Your task to perform on an android device: turn on translation in the chrome app Image 0: 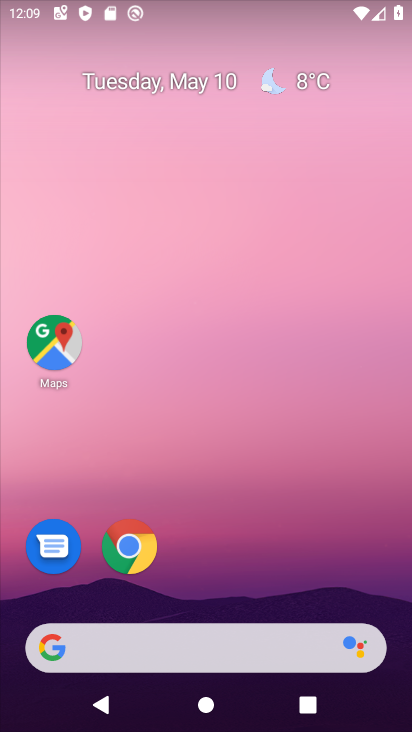
Step 0: drag from (290, 562) to (92, 140)
Your task to perform on an android device: turn on translation in the chrome app Image 1: 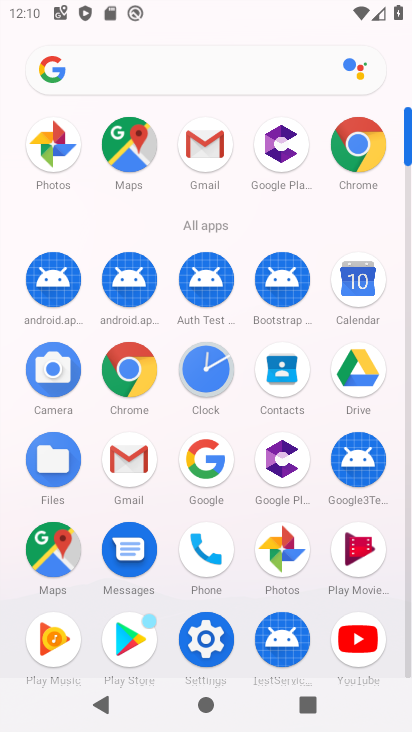
Step 1: click (362, 142)
Your task to perform on an android device: turn on translation in the chrome app Image 2: 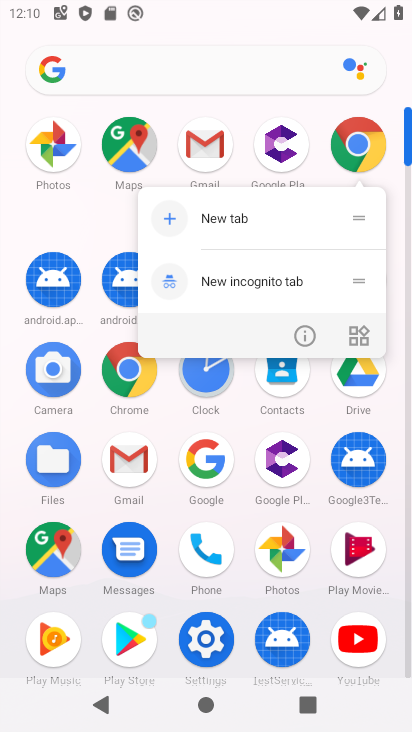
Step 2: click (346, 145)
Your task to perform on an android device: turn on translation in the chrome app Image 3: 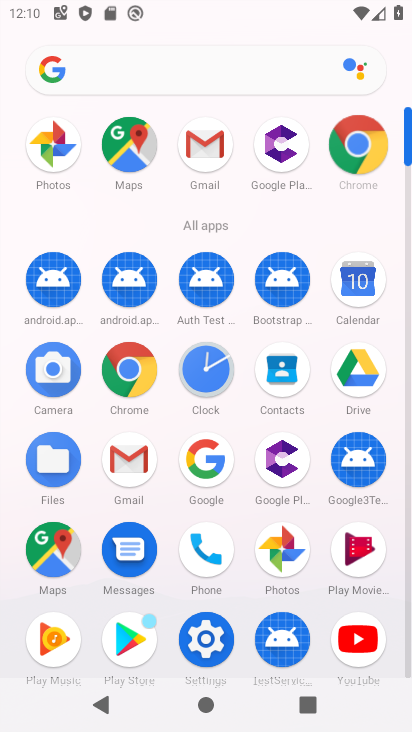
Step 3: click (349, 145)
Your task to perform on an android device: turn on translation in the chrome app Image 4: 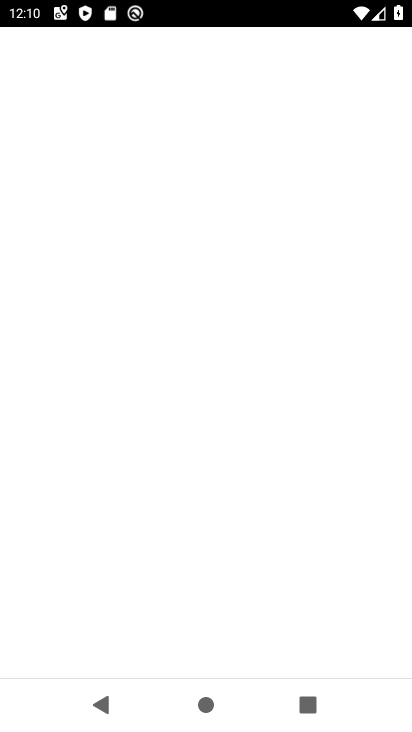
Step 4: click (349, 145)
Your task to perform on an android device: turn on translation in the chrome app Image 5: 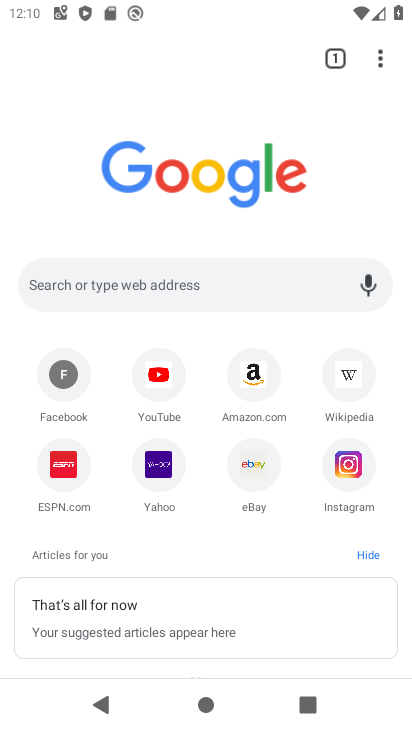
Step 5: drag from (372, 59) to (169, 492)
Your task to perform on an android device: turn on translation in the chrome app Image 6: 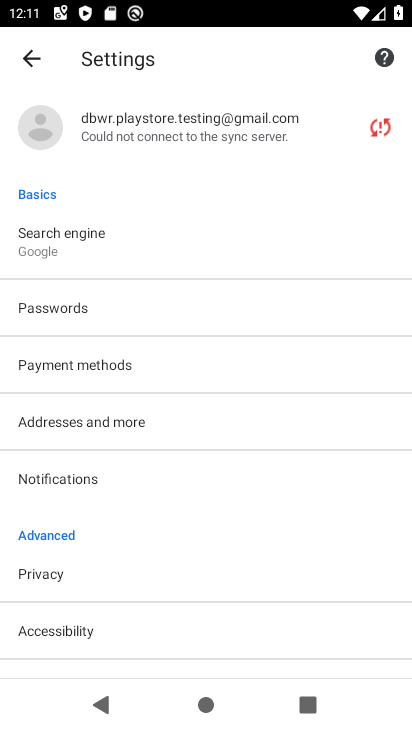
Step 6: drag from (136, 524) to (119, 300)
Your task to perform on an android device: turn on translation in the chrome app Image 7: 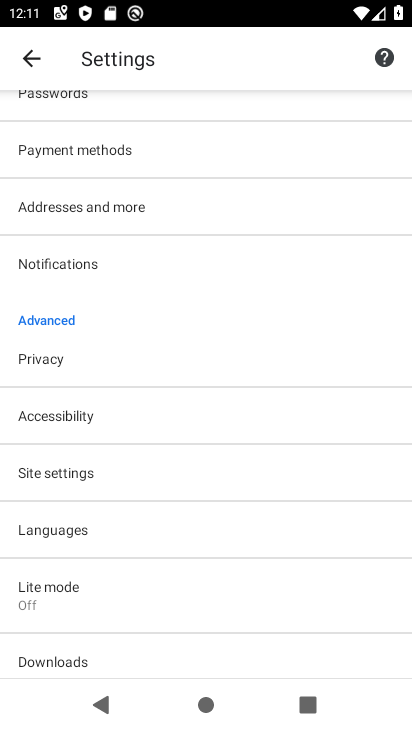
Step 7: click (51, 530)
Your task to perform on an android device: turn on translation in the chrome app Image 8: 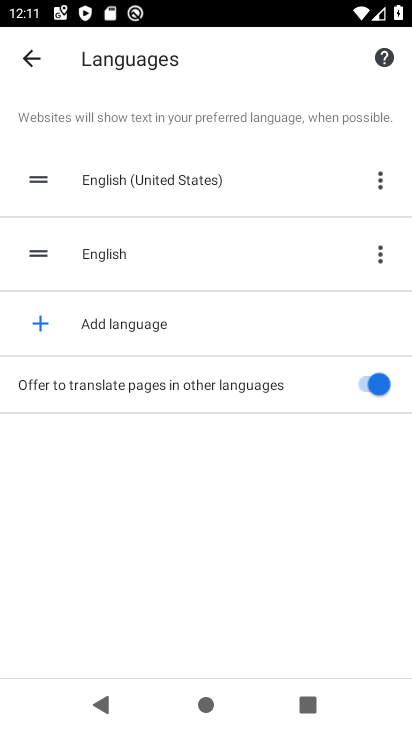
Step 8: task complete